Your task to perform on an android device: check android version Image 0: 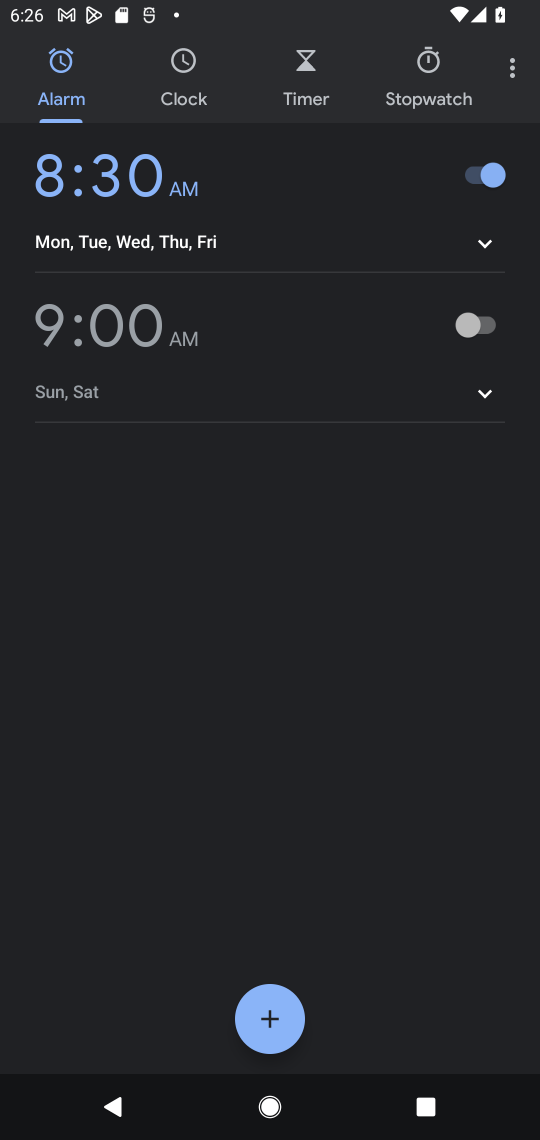
Step 0: press home button
Your task to perform on an android device: check android version Image 1: 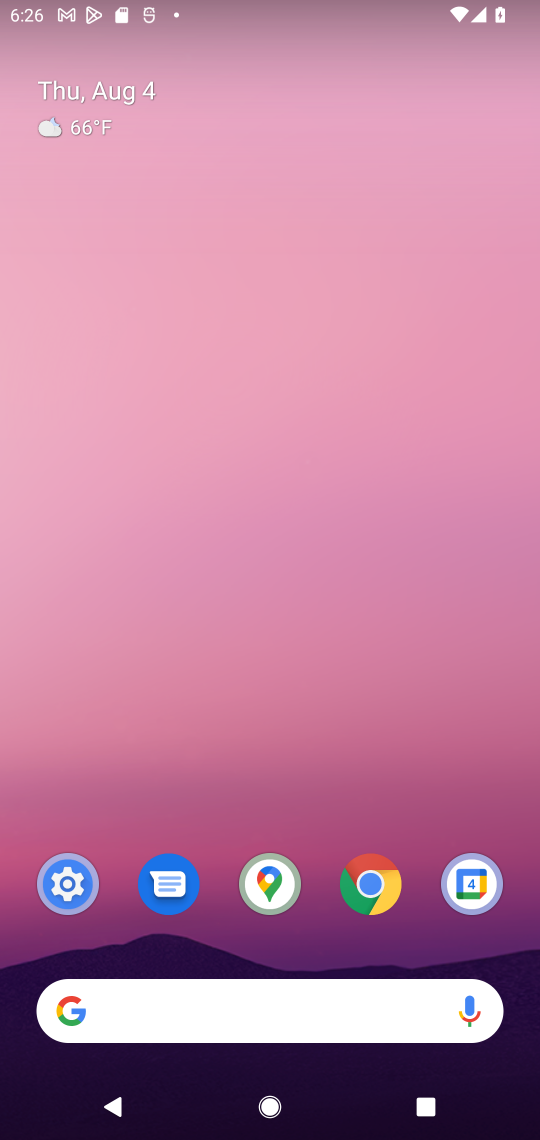
Step 1: click (63, 895)
Your task to perform on an android device: check android version Image 2: 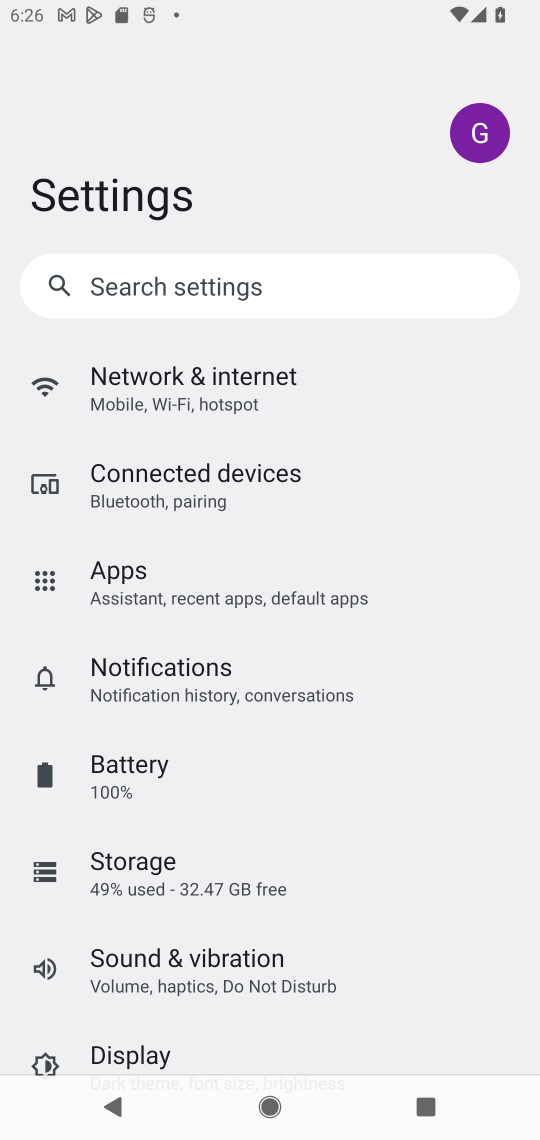
Step 2: task complete